Your task to perform on an android device: toggle notification dots Image 0: 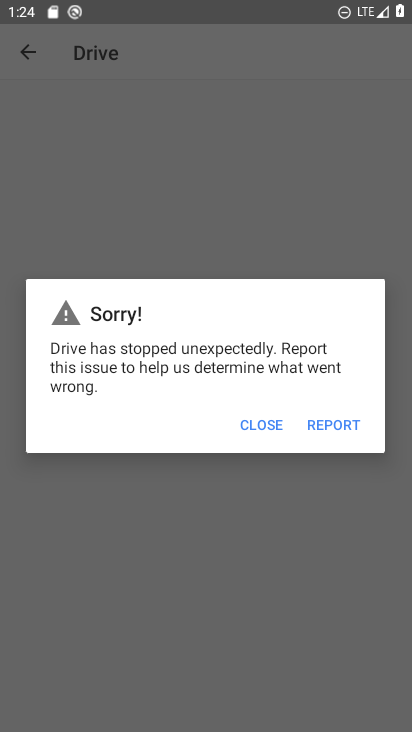
Step 0: press home button
Your task to perform on an android device: toggle notification dots Image 1: 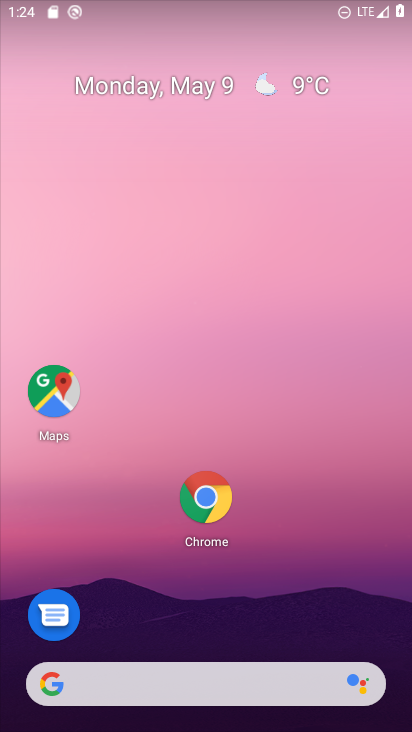
Step 1: drag from (289, 306) to (276, 206)
Your task to perform on an android device: toggle notification dots Image 2: 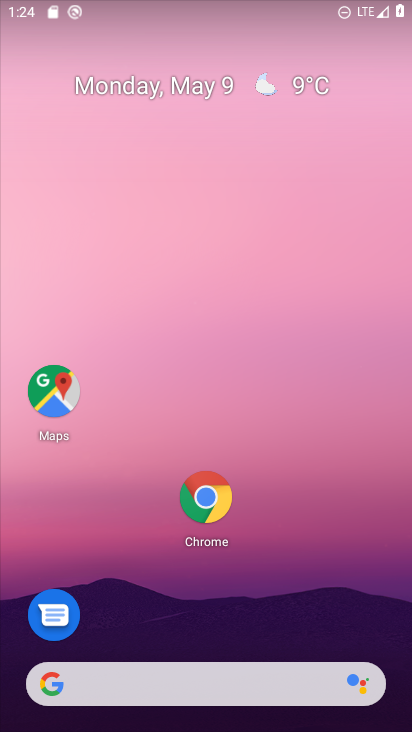
Step 2: drag from (364, 501) to (265, 190)
Your task to perform on an android device: toggle notification dots Image 3: 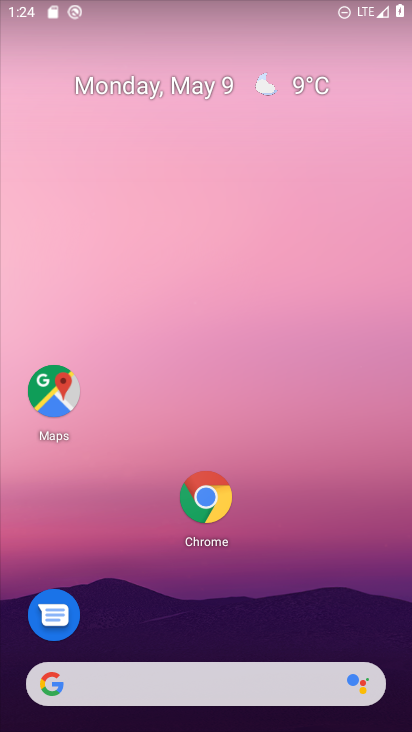
Step 3: drag from (335, 566) to (227, 93)
Your task to perform on an android device: toggle notification dots Image 4: 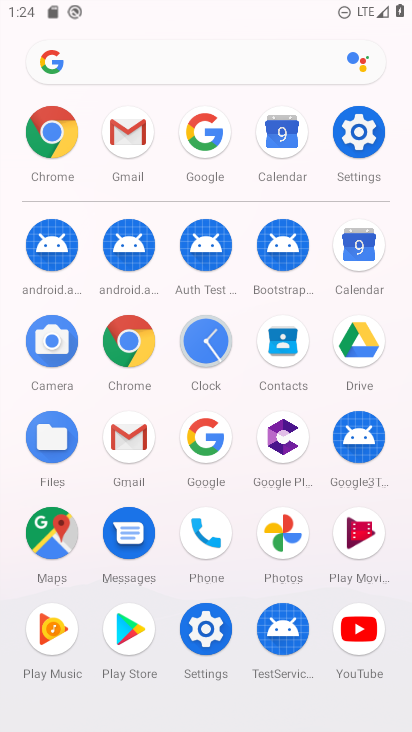
Step 4: click (370, 121)
Your task to perform on an android device: toggle notification dots Image 5: 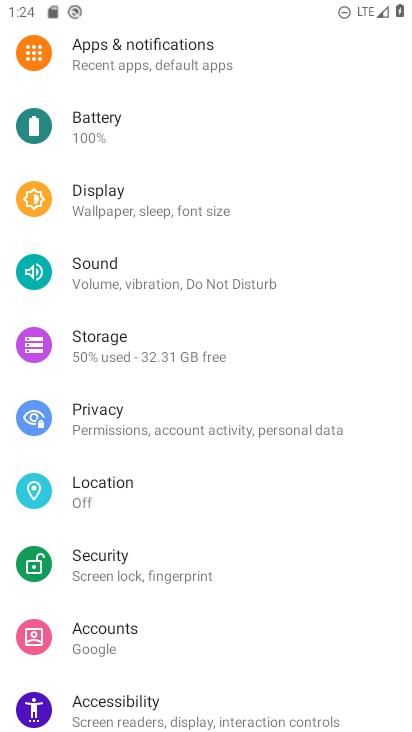
Step 5: drag from (159, 313) to (189, 607)
Your task to perform on an android device: toggle notification dots Image 6: 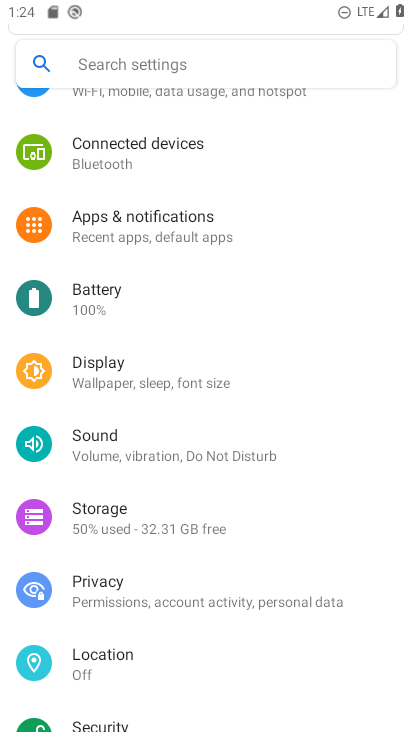
Step 6: click (138, 220)
Your task to perform on an android device: toggle notification dots Image 7: 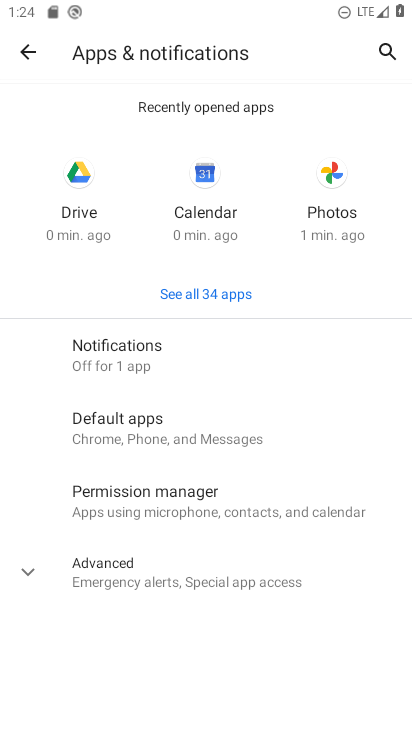
Step 7: click (140, 365)
Your task to perform on an android device: toggle notification dots Image 8: 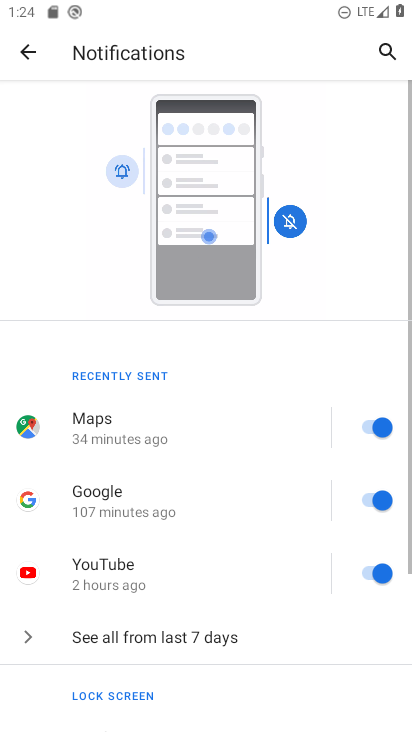
Step 8: drag from (263, 590) to (204, 65)
Your task to perform on an android device: toggle notification dots Image 9: 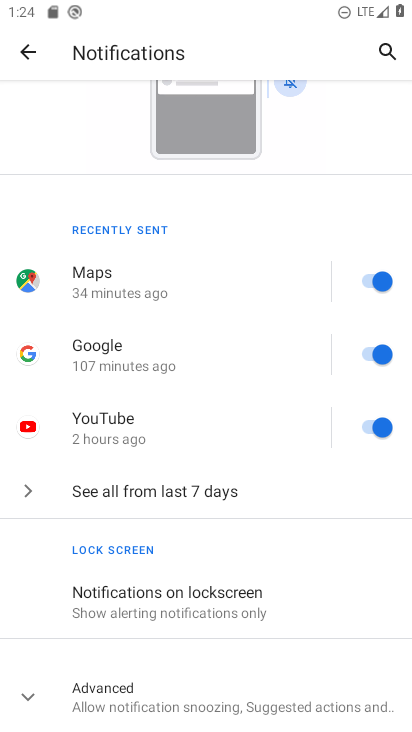
Step 9: click (113, 711)
Your task to perform on an android device: toggle notification dots Image 10: 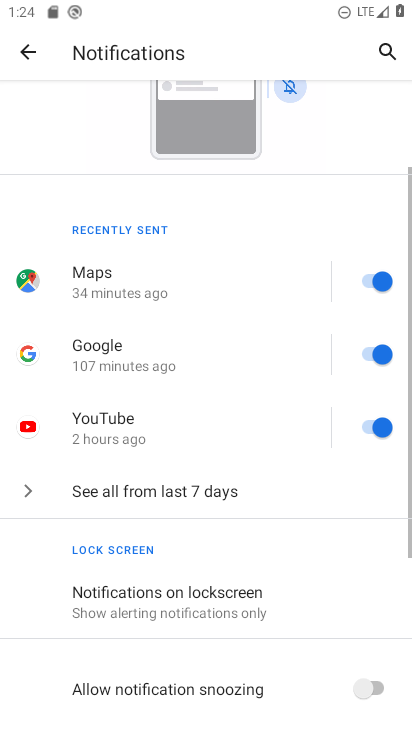
Step 10: drag from (286, 691) to (198, 199)
Your task to perform on an android device: toggle notification dots Image 11: 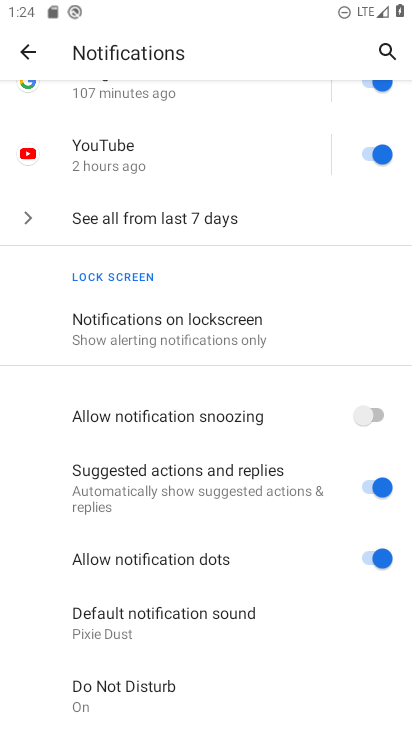
Step 11: click (380, 558)
Your task to perform on an android device: toggle notification dots Image 12: 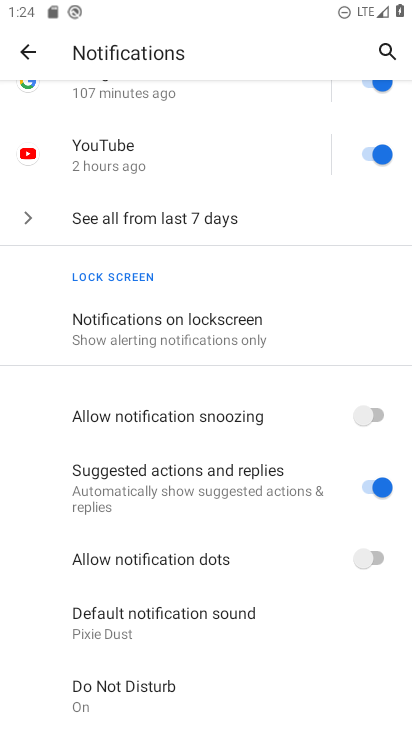
Step 12: task complete